Your task to perform on an android device: Set the phone to "Do not disturb". Image 0: 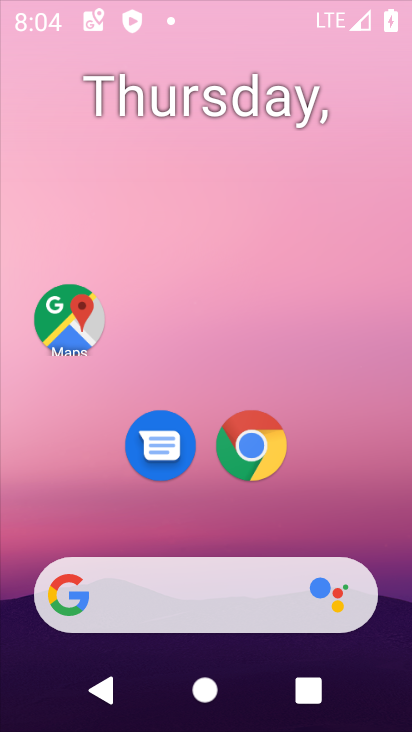
Step 0: drag from (323, 158) to (325, 116)
Your task to perform on an android device: Set the phone to "Do not disturb". Image 1: 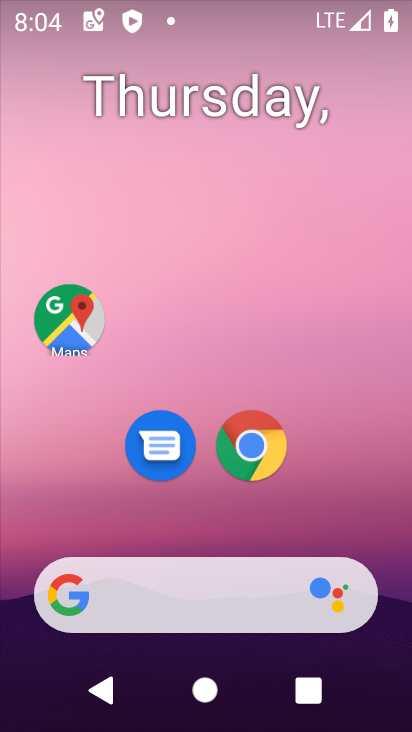
Step 1: drag from (205, 543) to (253, 109)
Your task to perform on an android device: Set the phone to "Do not disturb". Image 2: 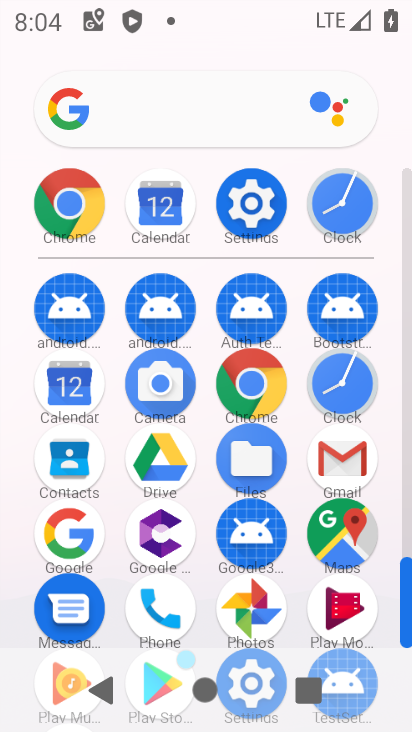
Step 2: click (256, 202)
Your task to perform on an android device: Set the phone to "Do not disturb". Image 3: 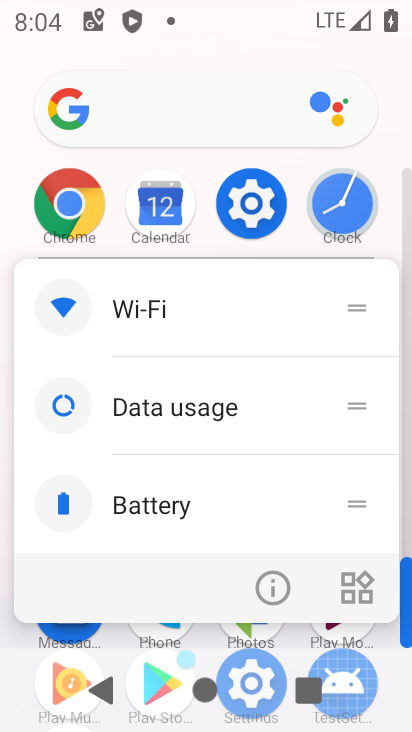
Step 3: click (276, 579)
Your task to perform on an android device: Set the phone to "Do not disturb". Image 4: 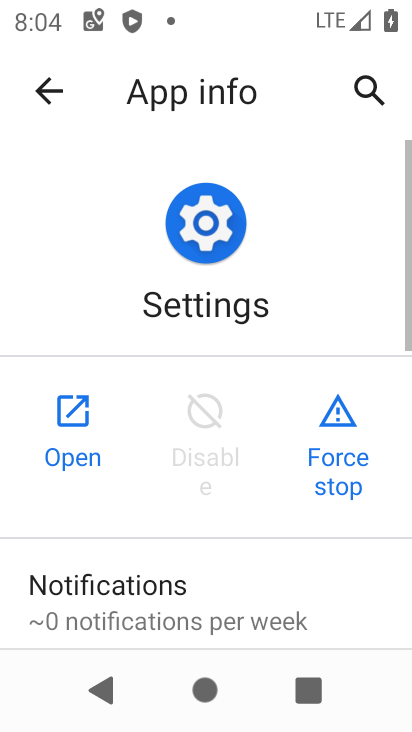
Step 4: click (82, 418)
Your task to perform on an android device: Set the phone to "Do not disturb". Image 5: 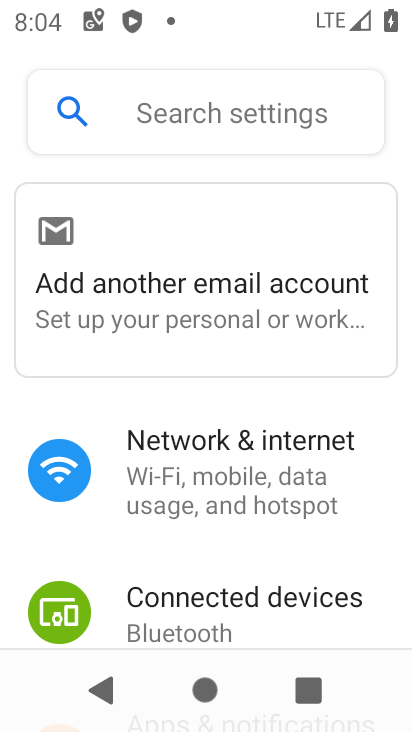
Step 5: drag from (202, 557) to (301, 76)
Your task to perform on an android device: Set the phone to "Do not disturb". Image 6: 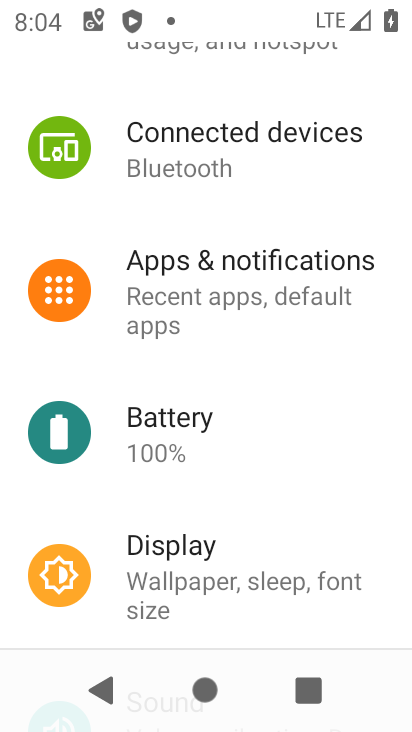
Step 6: drag from (161, 596) to (234, 198)
Your task to perform on an android device: Set the phone to "Do not disturb". Image 7: 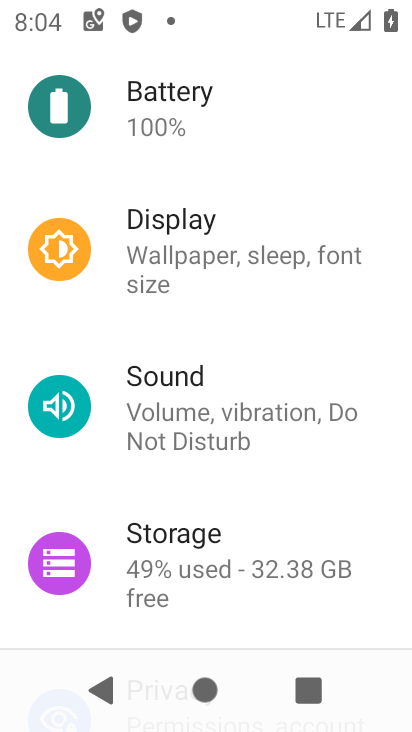
Step 7: drag from (300, 287) to (291, 683)
Your task to perform on an android device: Set the phone to "Do not disturb". Image 8: 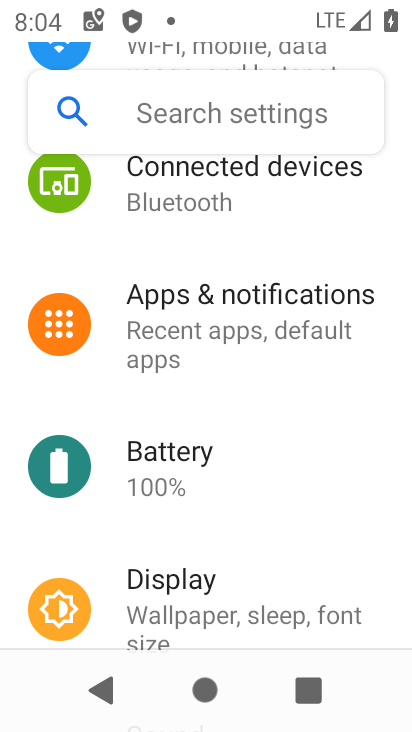
Step 8: drag from (212, 247) to (303, 570)
Your task to perform on an android device: Set the phone to "Do not disturb". Image 9: 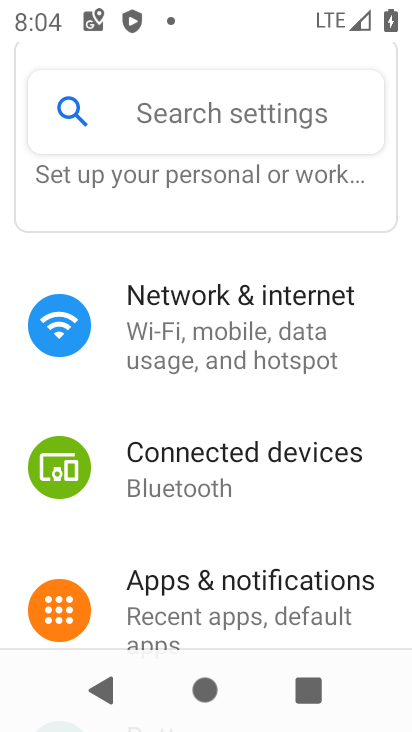
Step 9: click (261, 610)
Your task to perform on an android device: Set the phone to "Do not disturb". Image 10: 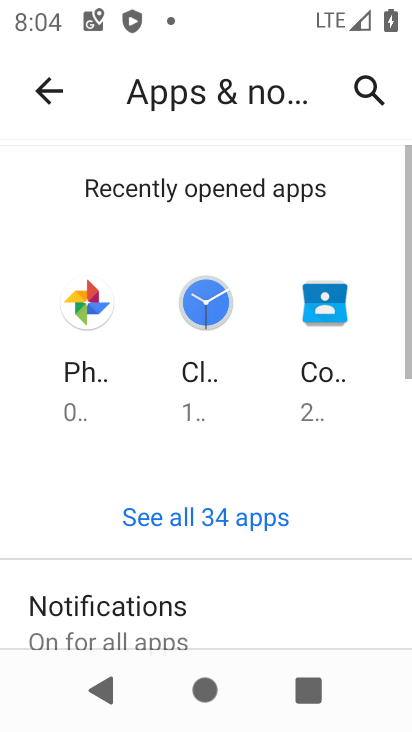
Step 10: drag from (206, 577) to (304, 198)
Your task to perform on an android device: Set the phone to "Do not disturb". Image 11: 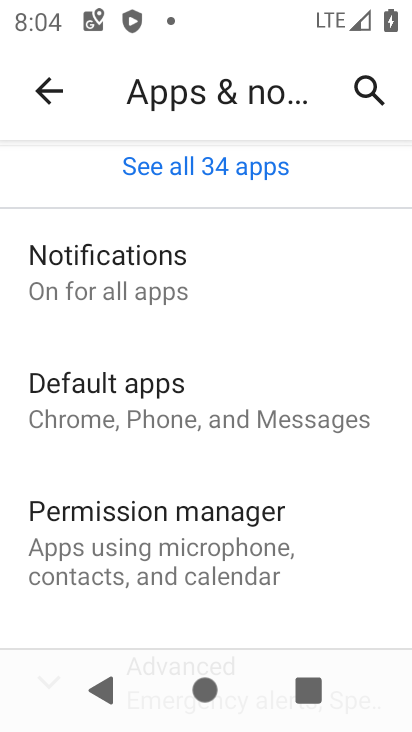
Step 11: click (181, 287)
Your task to perform on an android device: Set the phone to "Do not disturb". Image 12: 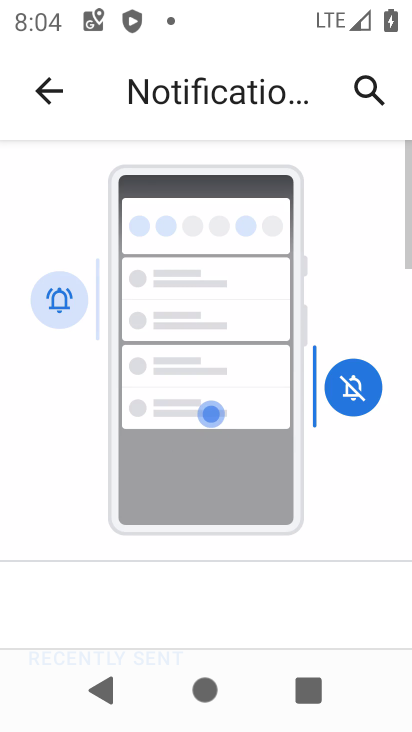
Step 12: drag from (220, 612) to (282, 338)
Your task to perform on an android device: Set the phone to "Do not disturb". Image 13: 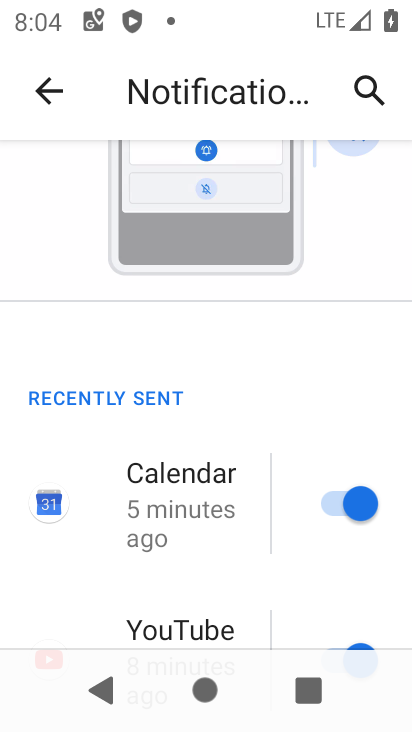
Step 13: drag from (205, 617) to (302, 258)
Your task to perform on an android device: Set the phone to "Do not disturb". Image 14: 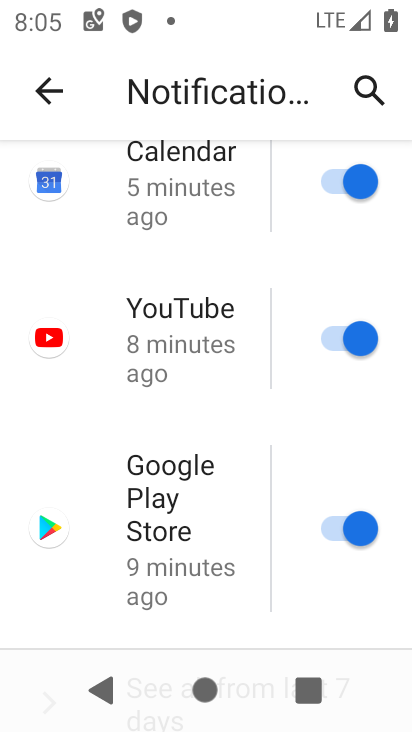
Step 14: drag from (201, 638) to (285, 169)
Your task to perform on an android device: Set the phone to "Do not disturb". Image 15: 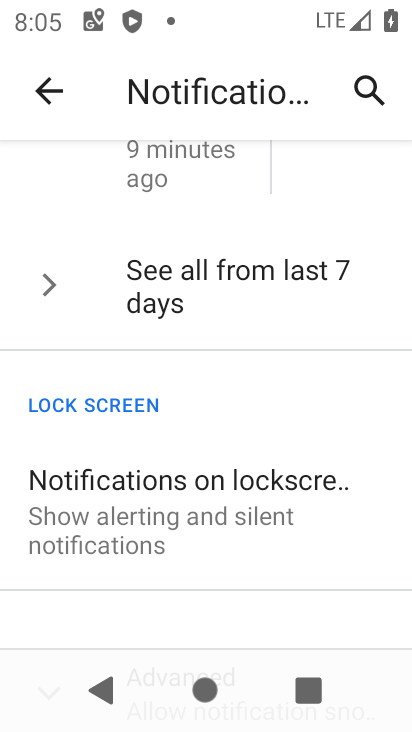
Step 15: drag from (213, 589) to (282, 207)
Your task to perform on an android device: Set the phone to "Do not disturb". Image 16: 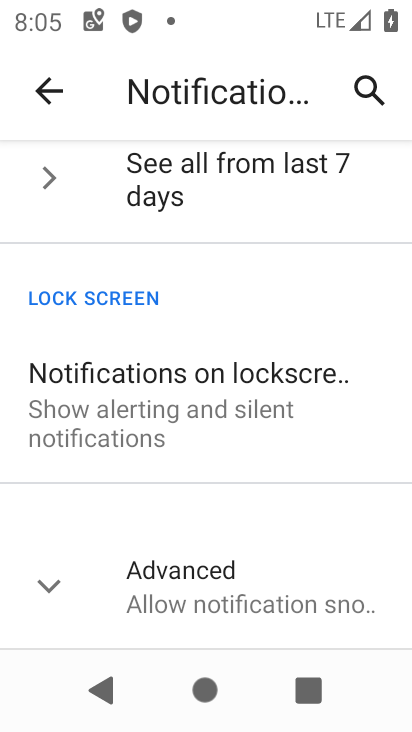
Step 16: click (208, 567)
Your task to perform on an android device: Set the phone to "Do not disturb". Image 17: 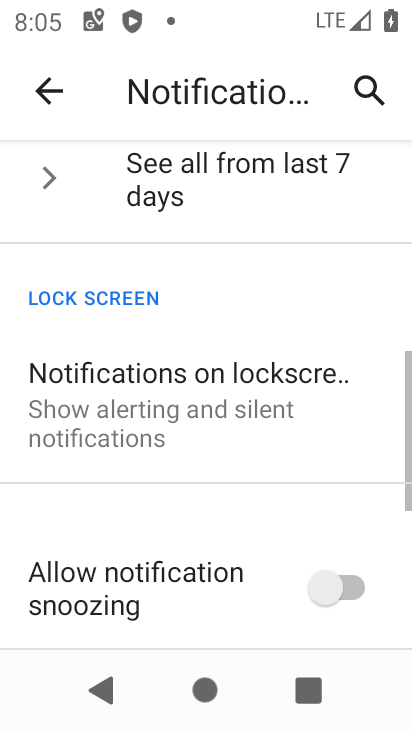
Step 17: drag from (223, 584) to (285, 170)
Your task to perform on an android device: Set the phone to "Do not disturb". Image 18: 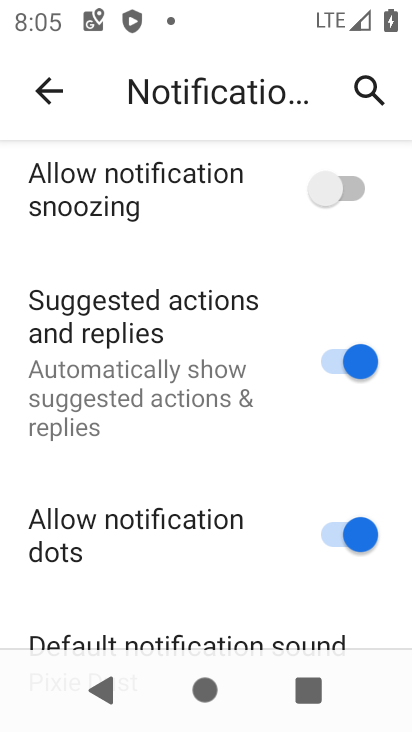
Step 18: drag from (203, 617) to (278, 190)
Your task to perform on an android device: Set the phone to "Do not disturb". Image 19: 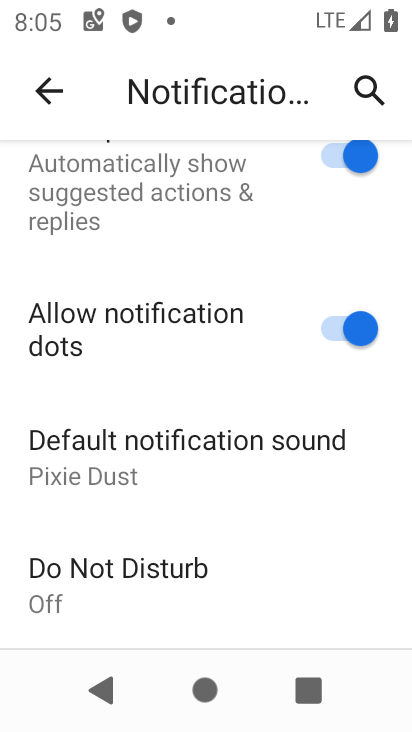
Step 19: click (125, 570)
Your task to perform on an android device: Set the phone to "Do not disturb". Image 20: 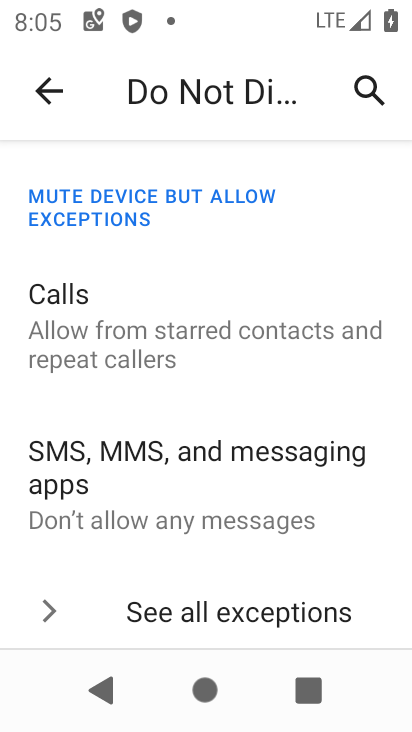
Step 20: task complete